Your task to perform on an android device: Show me the alarms in the clock app Image 0: 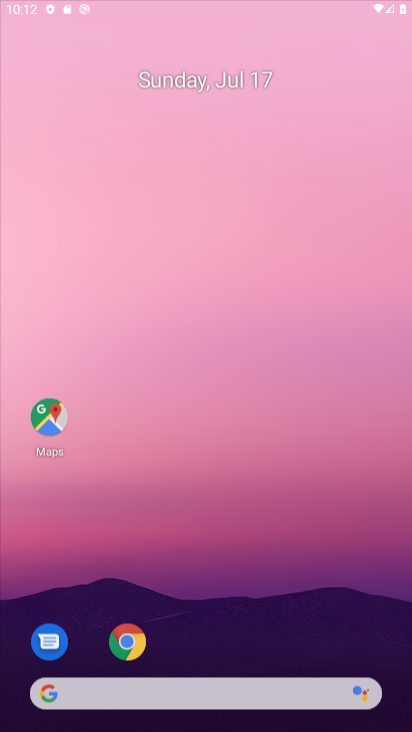
Step 0: drag from (131, 74) to (402, 32)
Your task to perform on an android device: Show me the alarms in the clock app Image 1: 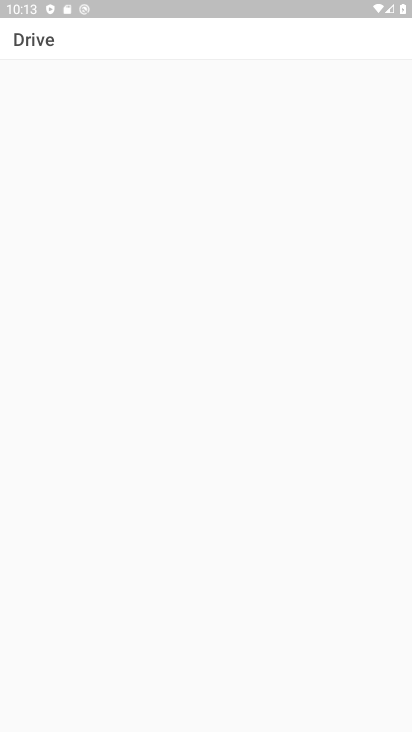
Step 1: press home button
Your task to perform on an android device: Show me the alarms in the clock app Image 2: 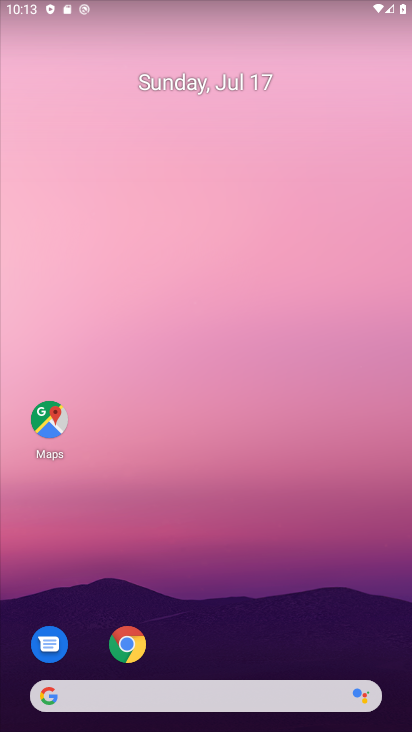
Step 2: drag from (285, 601) to (221, 24)
Your task to perform on an android device: Show me the alarms in the clock app Image 3: 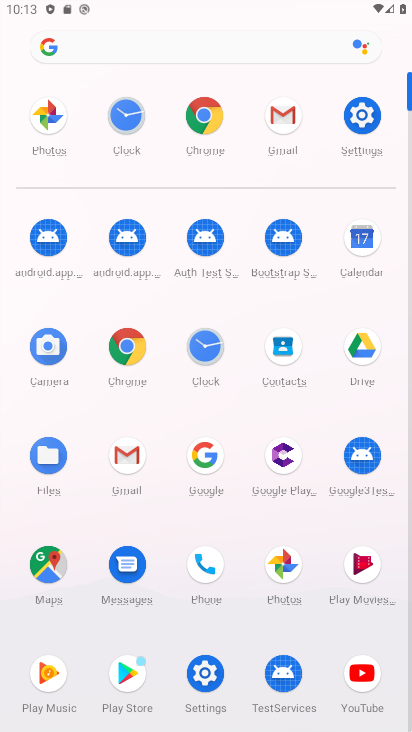
Step 3: click (209, 341)
Your task to perform on an android device: Show me the alarms in the clock app Image 4: 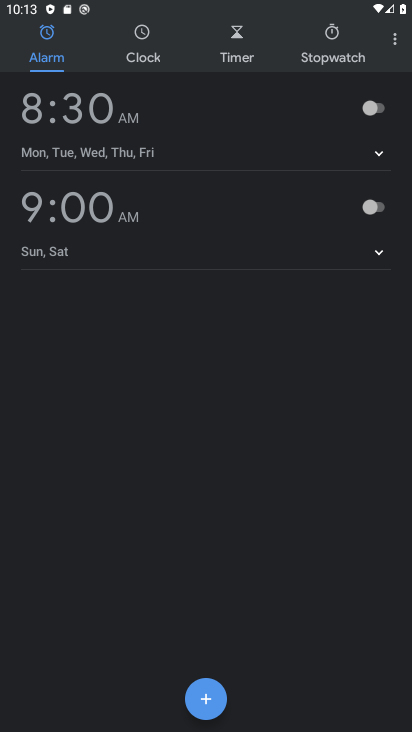
Step 4: task complete